Your task to perform on an android device: Show me recent news Image 0: 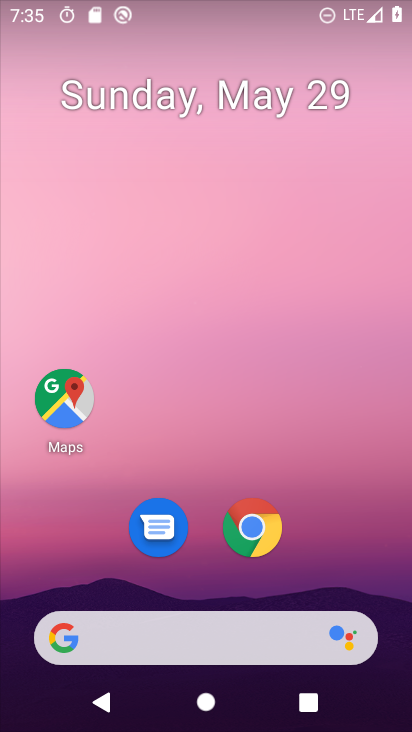
Step 0: drag from (318, 568) to (273, 11)
Your task to perform on an android device: Show me recent news Image 1: 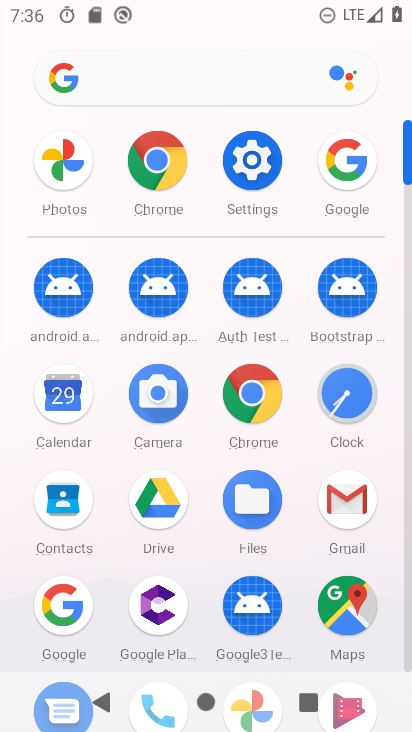
Step 1: click (50, 624)
Your task to perform on an android device: Show me recent news Image 2: 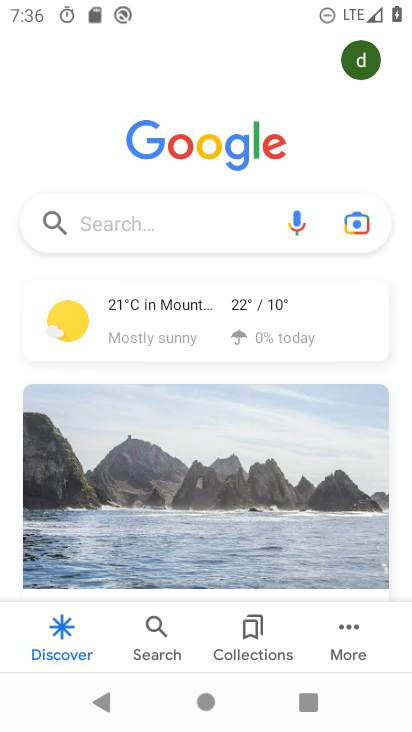
Step 2: click (186, 236)
Your task to perform on an android device: Show me recent news Image 3: 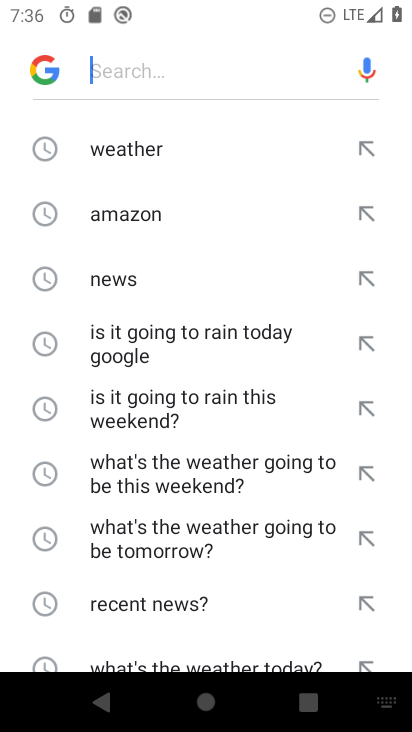
Step 3: click (113, 609)
Your task to perform on an android device: Show me recent news Image 4: 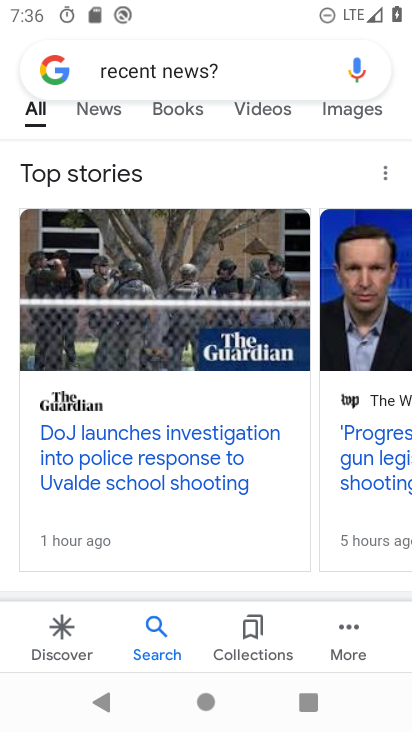
Step 4: task complete